Your task to perform on an android device: visit the assistant section in the google photos Image 0: 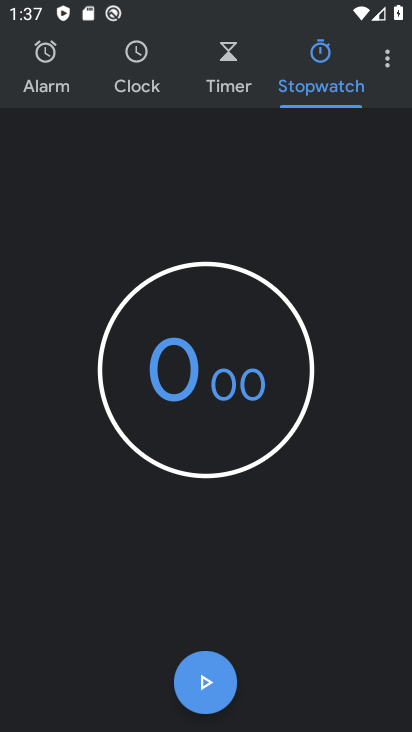
Step 0: press home button
Your task to perform on an android device: visit the assistant section in the google photos Image 1: 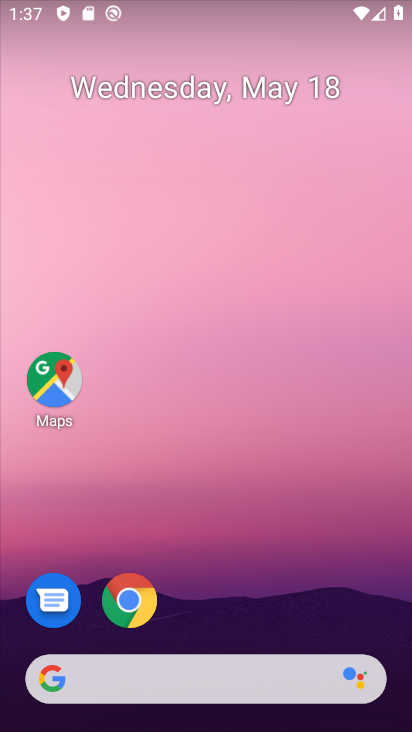
Step 1: drag from (260, 646) to (264, 172)
Your task to perform on an android device: visit the assistant section in the google photos Image 2: 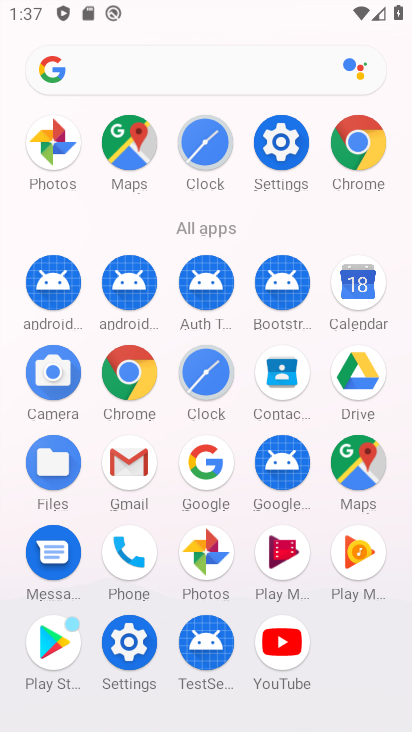
Step 2: click (192, 554)
Your task to perform on an android device: visit the assistant section in the google photos Image 3: 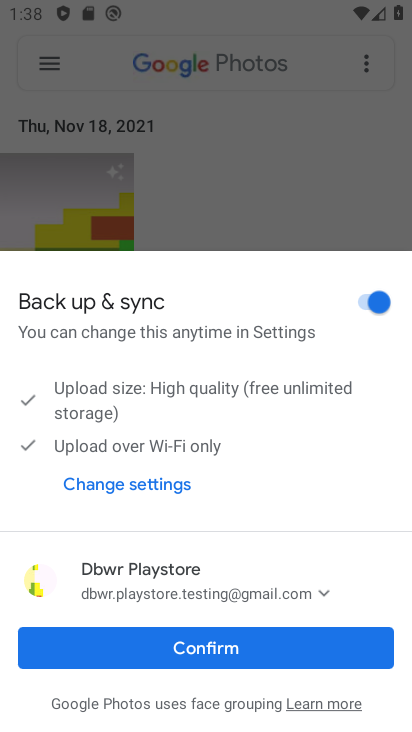
Step 3: click (198, 648)
Your task to perform on an android device: visit the assistant section in the google photos Image 4: 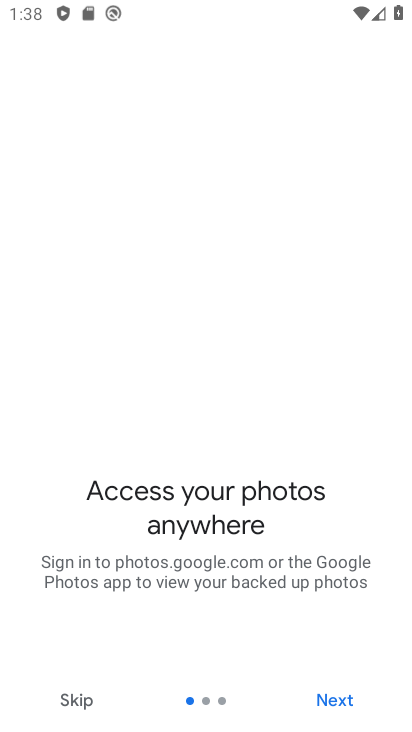
Step 4: click (318, 699)
Your task to perform on an android device: visit the assistant section in the google photos Image 5: 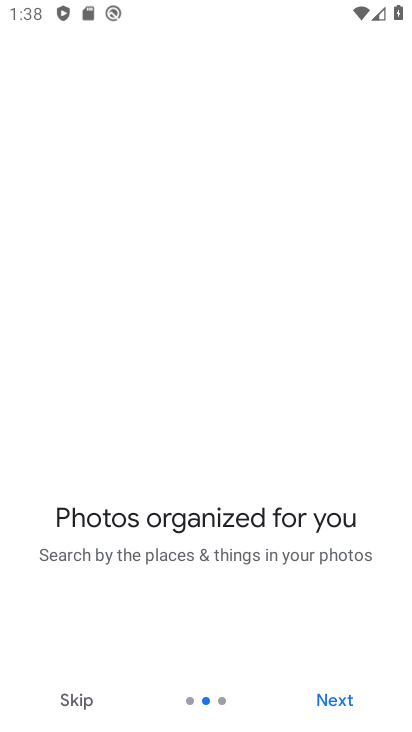
Step 5: click (318, 699)
Your task to perform on an android device: visit the assistant section in the google photos Image 6: 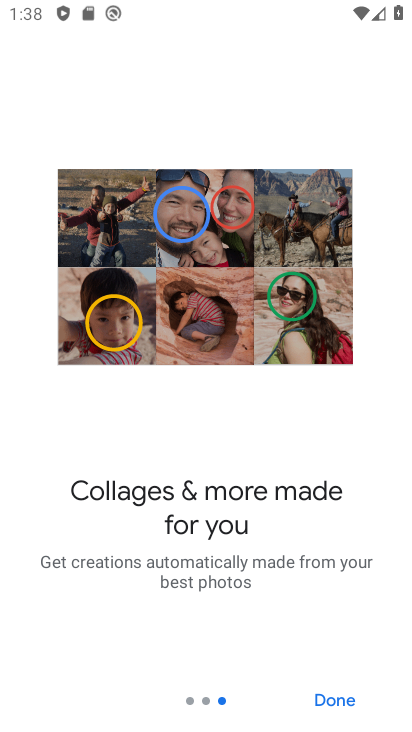
Step 6: click (318, 699)
Your task to perform on an android device: visit the assistant section in the google photos Image 7: 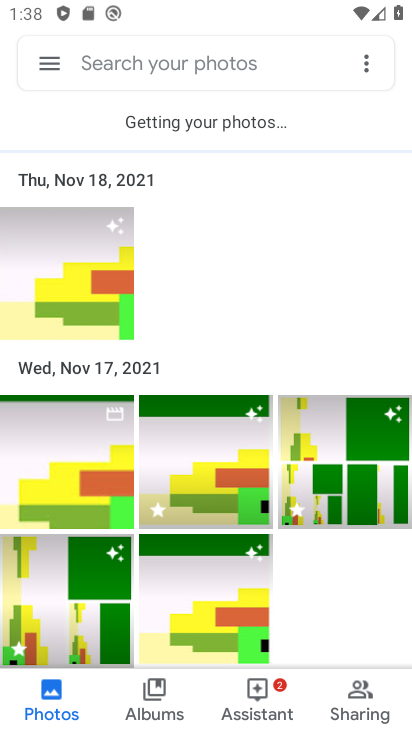
Step 7: click (270, 689)
Your task to perform on an android device: visit the assistant section in the google photos Image 8: 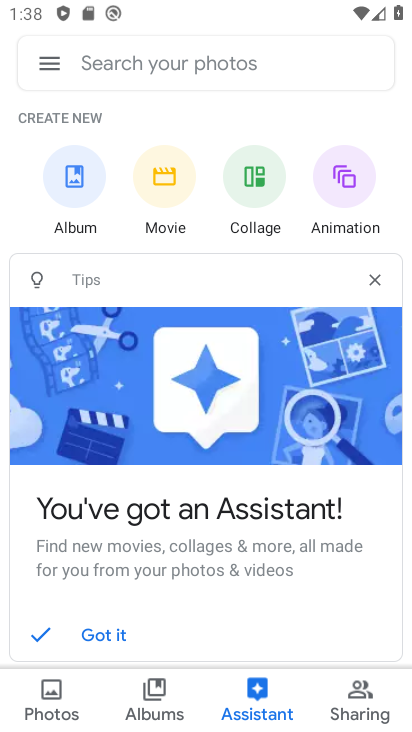
Step 8: task complete